Your task to perform on an android device: turn on notifications settings in the gmail app Image 0: 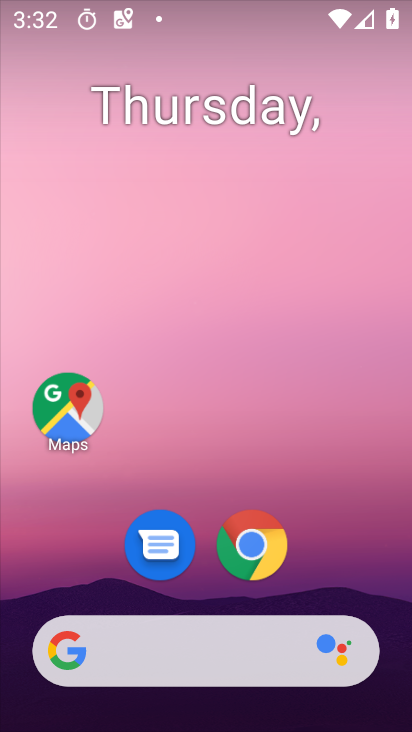
Step 0: drag from (249, 722) to (249, 108)
Your task to perform on an android device: turn on notifications settings in the gmail app Image 1: 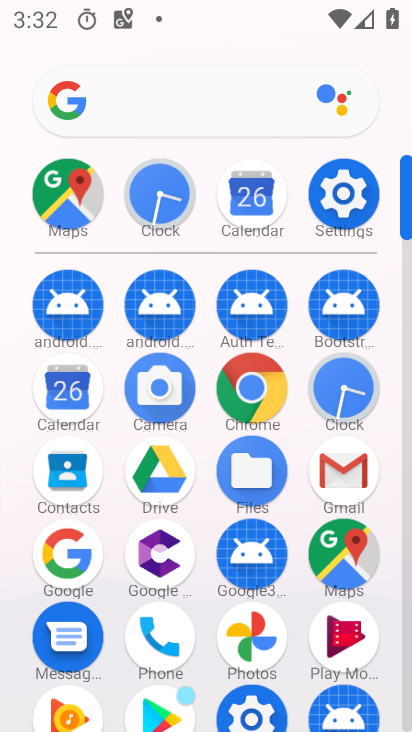
Step 1: click (346, 460)
Your task to perform on an android device: turn on notifications settings in the gmail app Image 2: 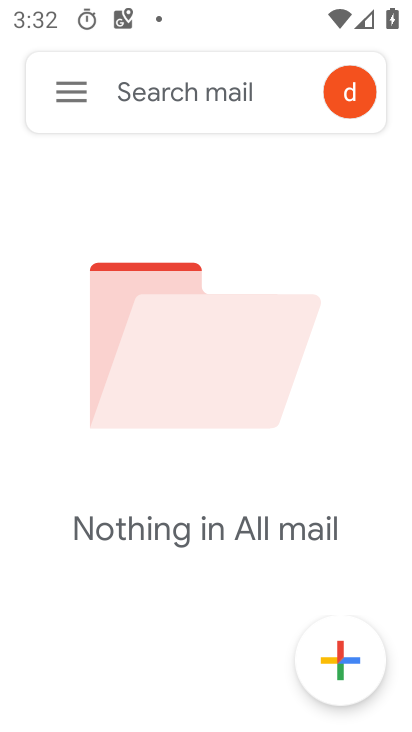
Step 2: click (70, 101)
Your task to perform on an android device: turn on notifications settings in the gmail app Image 3: 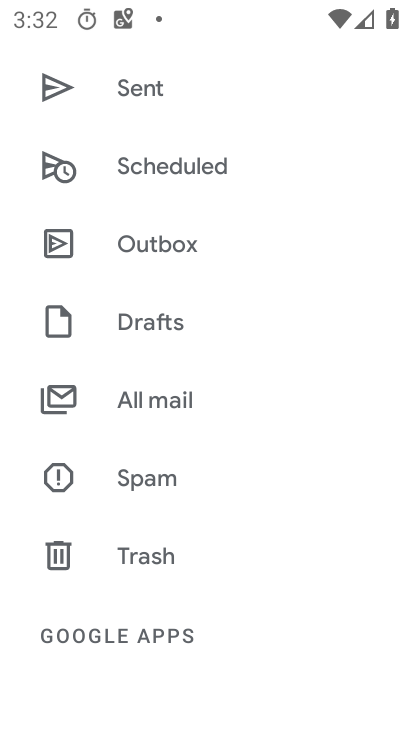
Step 3: drag from (192, 644) to (200, 201)
Your task to perform on an android device: turn on notifications settings in the gmail app Image 4: 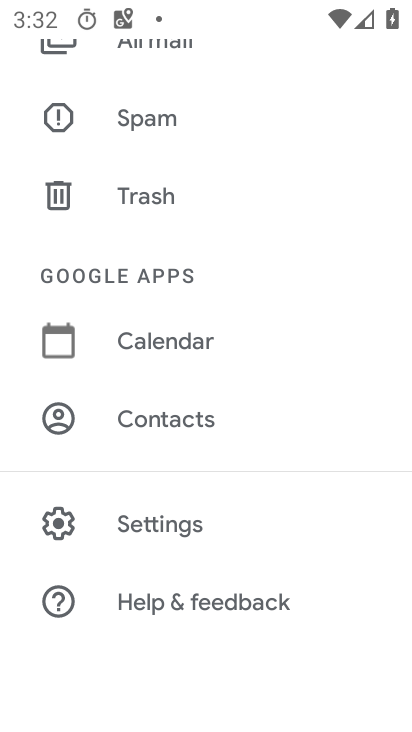
Step 4: click (152, 522)
Your task to perform on an android device: turn on notifications settings in the gmail app Image 5: 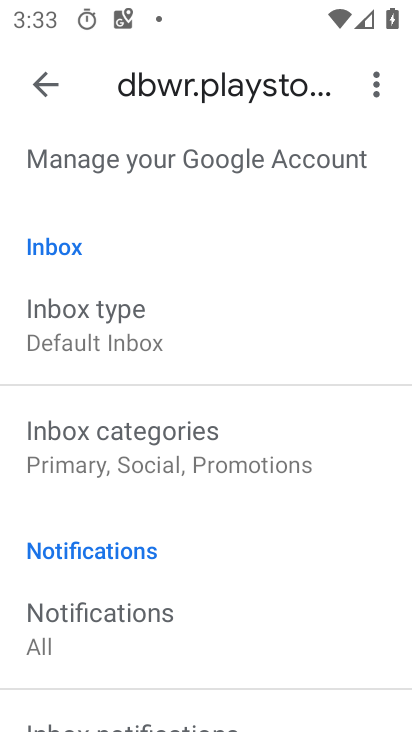
Step 5: task complete